Your task to perform on an android device: Open Maps and search for coffee Image 0: 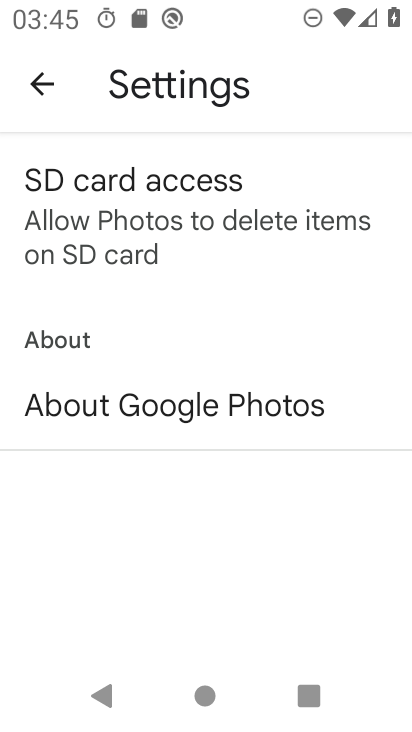
Step 0: press home button
Your task to perform on an android device: Open Maps and search for coffee Image 1: 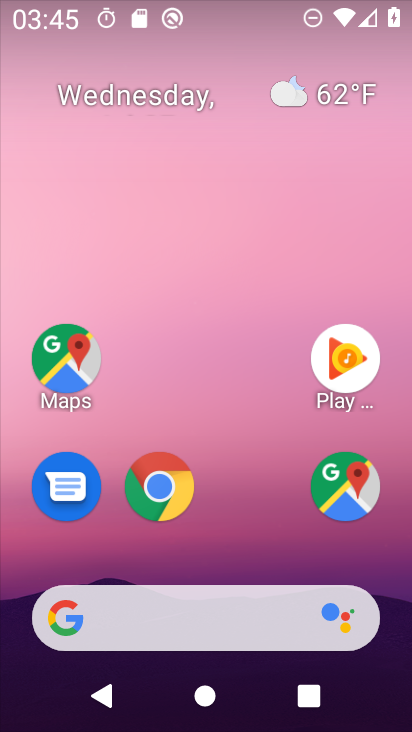
Step 1: drag from (251, 528) to (251, 132)
Your task to perform on an android device: Open Maps and search for coffee Image 2: 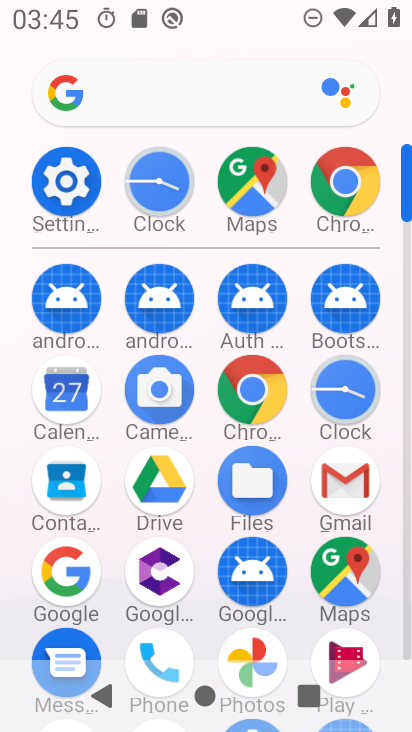
Step 2: click (350, 574)
Your task to perform on an android device: Open Maps and search for coffee Image 3: 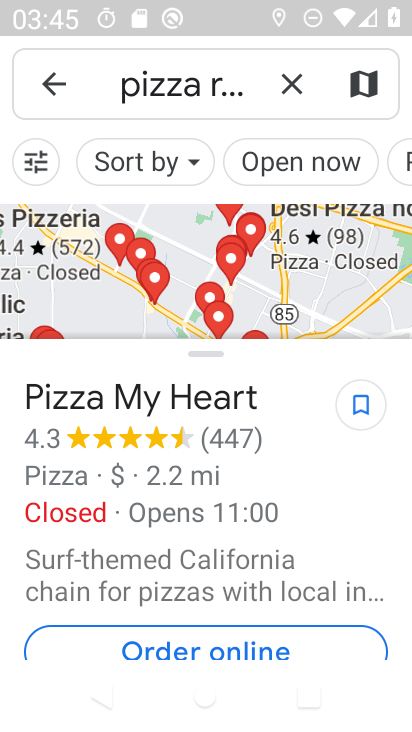
Step 3: press back button
Your task to perform on an android device: Open Maps and search for coffee Image 4: 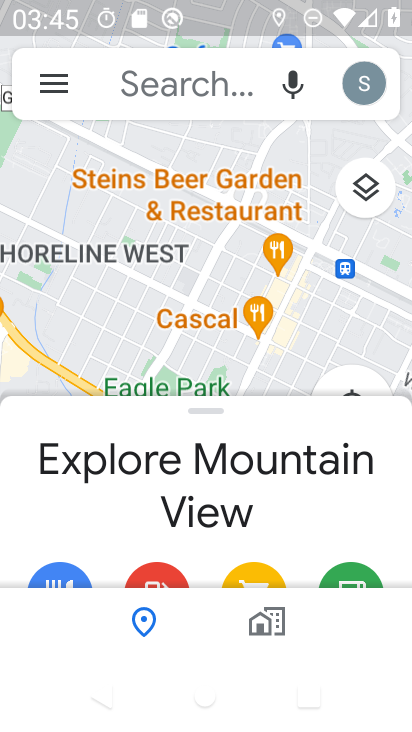
Step 4: click (190, 91)
Your task to perform on an android device: Open Maps and search for coffee Image 5: 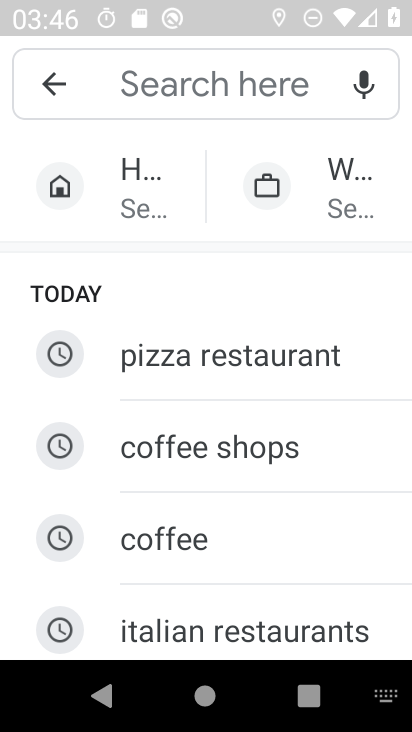
Step 5: type "coffee"
Your task to perform on an android device: Open Maps and search for coffee Image 6: 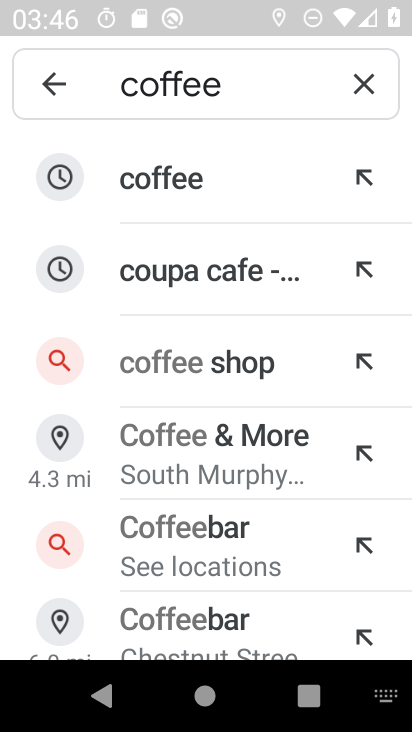
Step 6: click (280, 185)
Your task to perform on an android device: Open Maps and search for coffee Image 7: 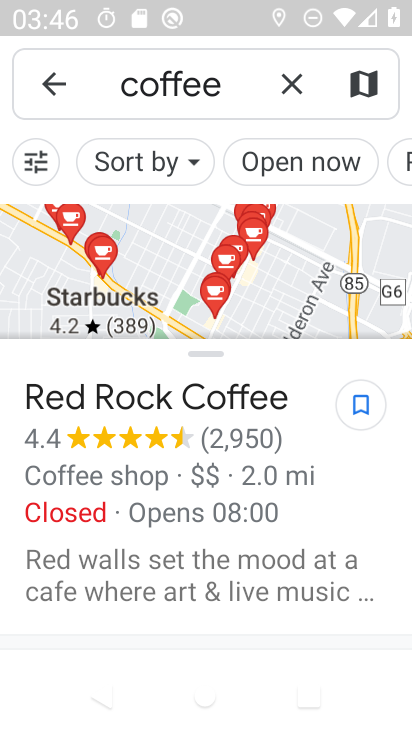
Step 7: task complete